Your task to perform on an android device: What is the news today? Image 0: 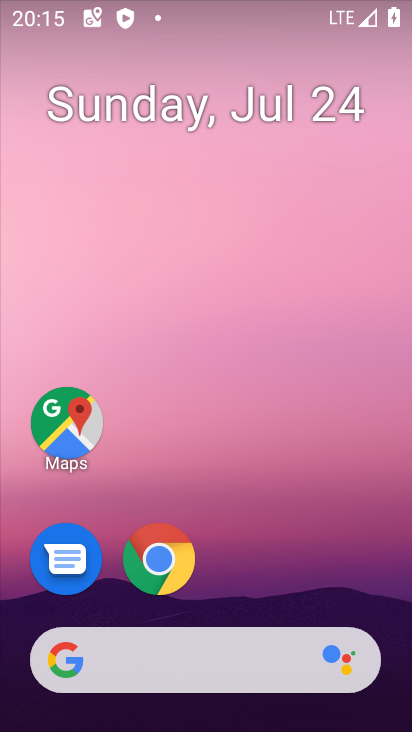
Step 0: press home button
Your task to perform on an android device: What is the news today? Image 1: 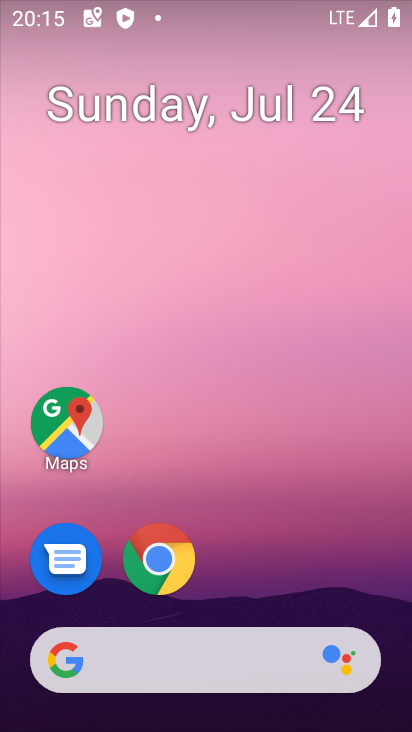
Step 1: task complete